Your task to perform on an android device: Go to Android settings Image 0: 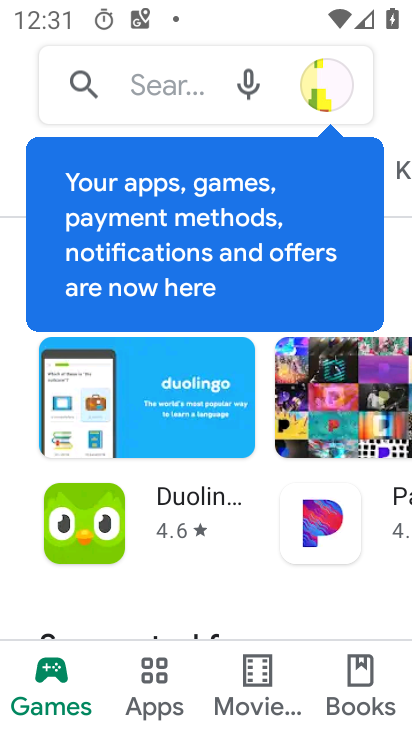
Step 0: press home button
Your task to perform on an android device: Go to Android settings Image 1: 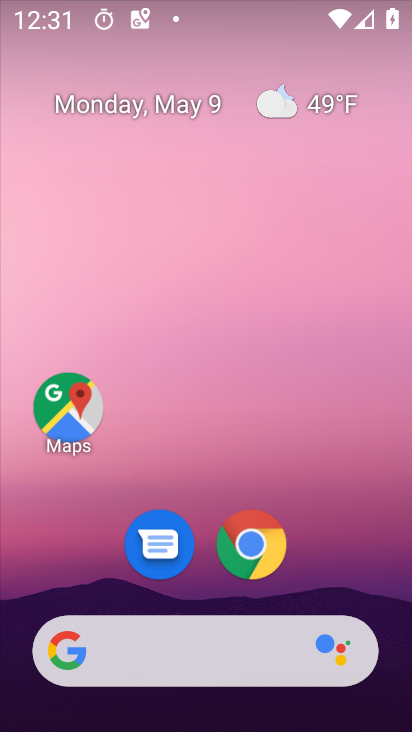
Step 1: drag from (303, 614) to (321, 4)
Your task to perform on an android device: Go to Android settings Image 2: 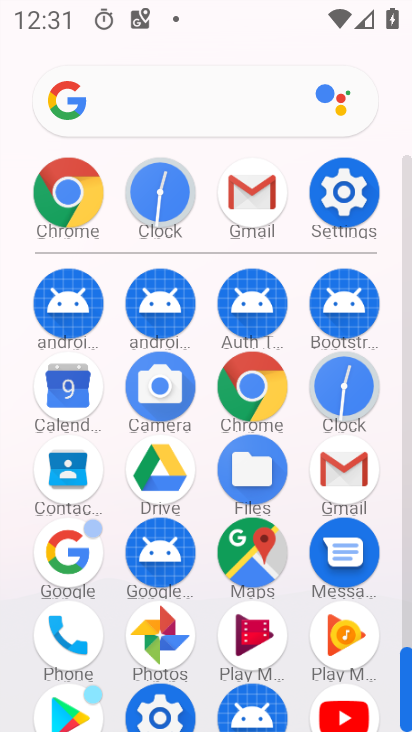
Step 2: click (341, 196)
Your task to perform on an android device: Go to Android settings Image 3: 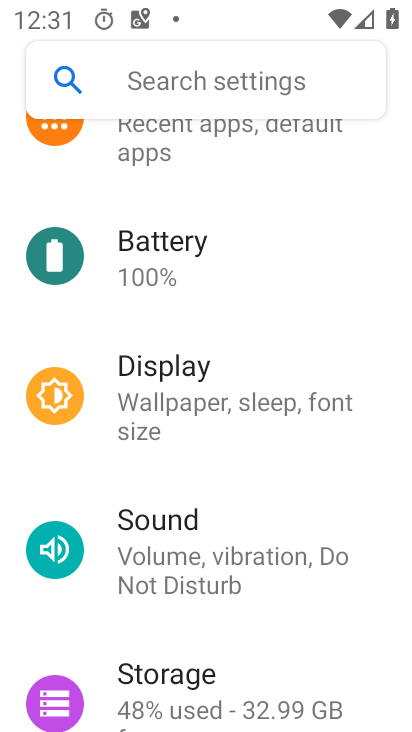
Step 3: drag from (240, 678) to (245, 91)
Your task to perform on an android device: Go to Android settings Image 4: 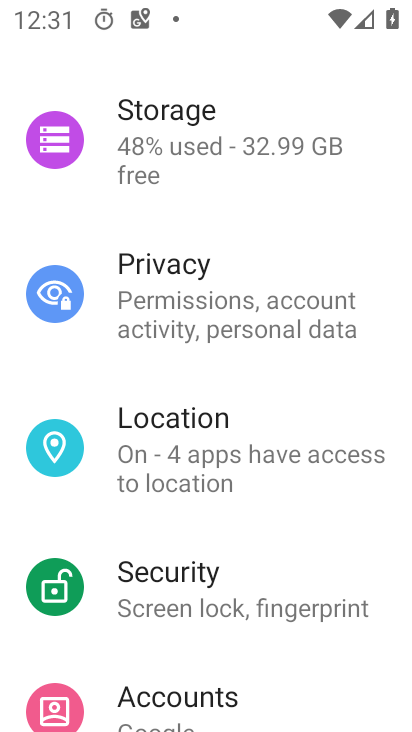
Step 4: drag from (241, 695) to (306, 142)
Your task to perform on an android device: Go to Android settings Image 5: 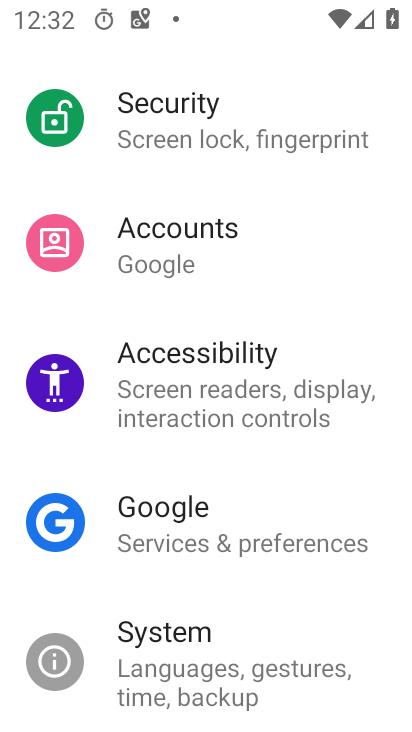
Step 5: drag from (250, 675) to (199, 184)
Your task to perform on an android device: Go to Android settings Image 6: 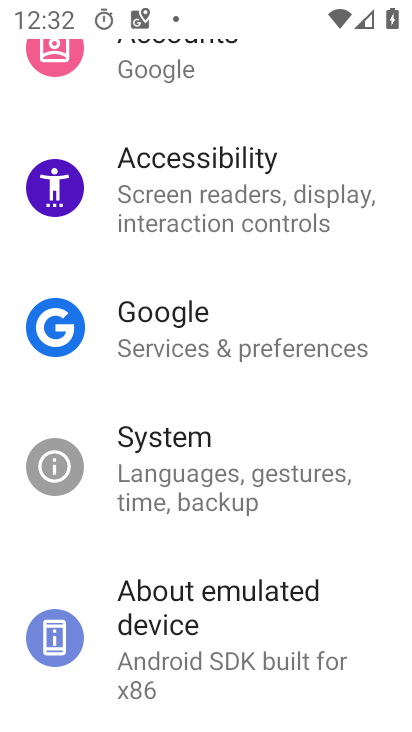
Step 6: click (252, 628)
Your task to perform on an android device: Go to Android settings Image 7: 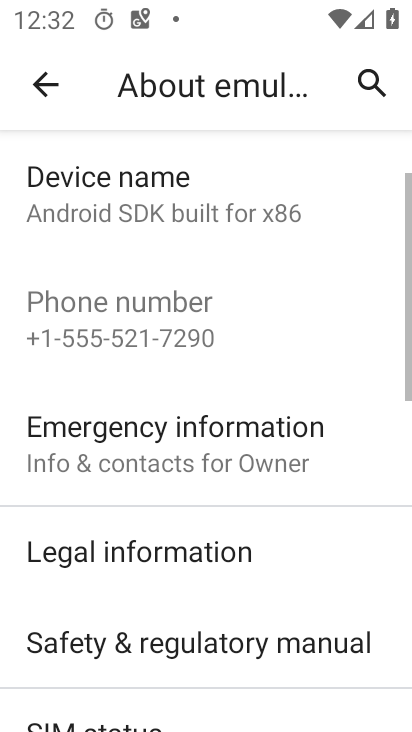
Step 7: task complete